Your task to perform on an android device: snooze an email in the gmail app Image 0: 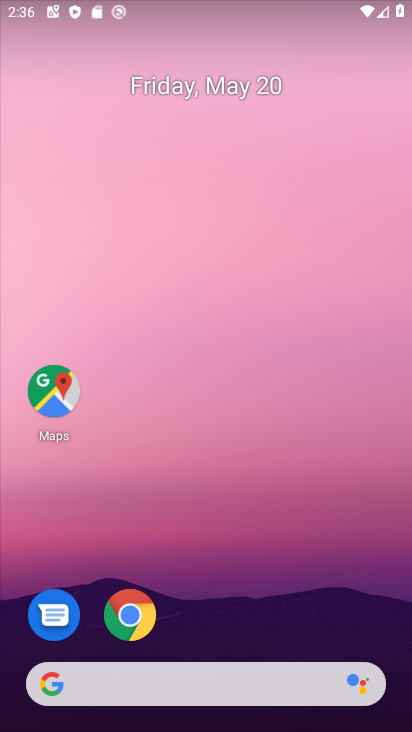
Step 0: drag from (232, 639) to (302, 235)
Your task to perform on an android device: snooze an email in the gmail app Image 1: 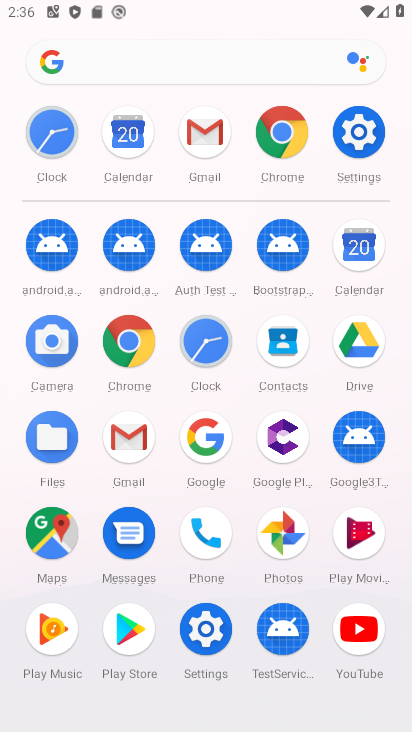
Step 1: click (130, 443)
Your task to perform on an android device: snooze an email in the gmail app Image 2: 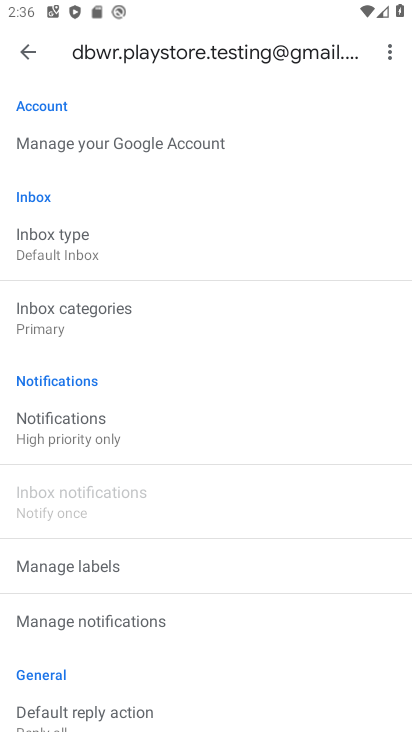
Step 2: click (21, 54)
Your task to perform on an android device: snooze an email in the gmail app Image 3: 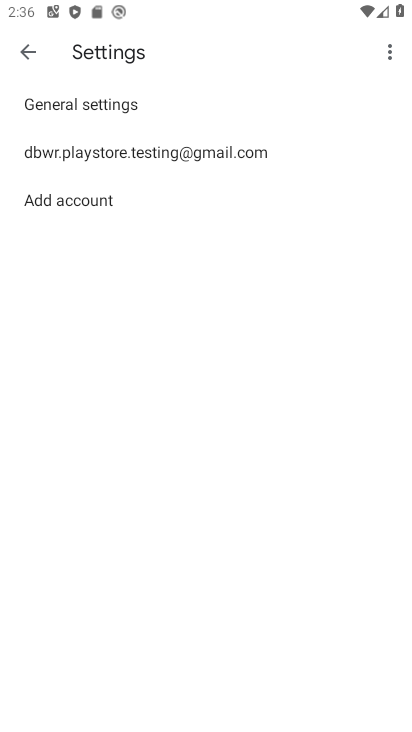
Step 3: click (31, 47)
Your task to perform on an android device: snooze an email in the gmail app Image 4: 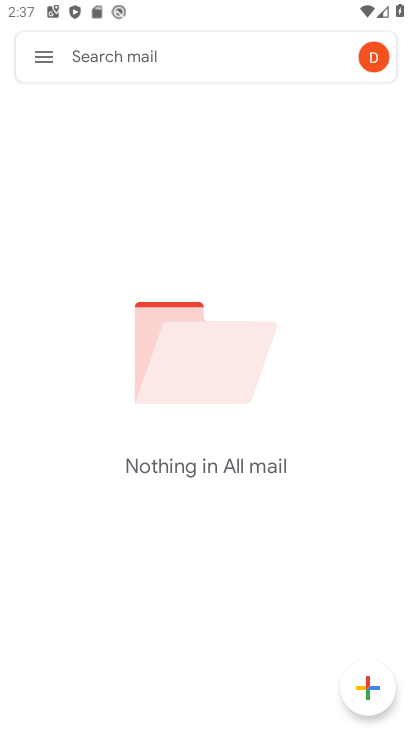
Step 4: click (34, 48)
Your task to perform on an android device: snooze an email in the gmail app Image 5: 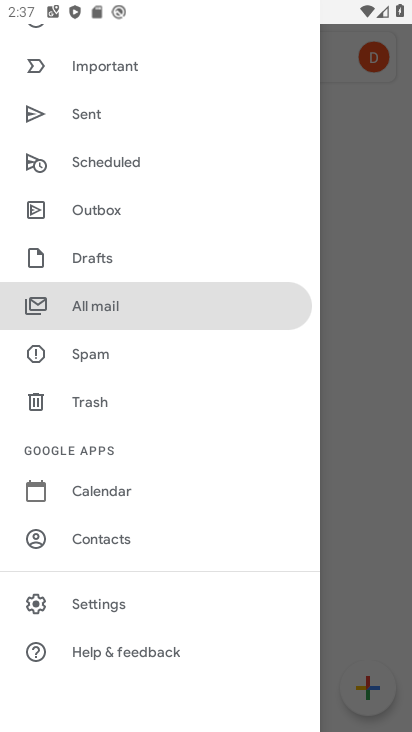
Step 5: drag from (136, 132) to (106, 399)
Your task to perform on an android device: snooze an email in the gmail app Image 6: 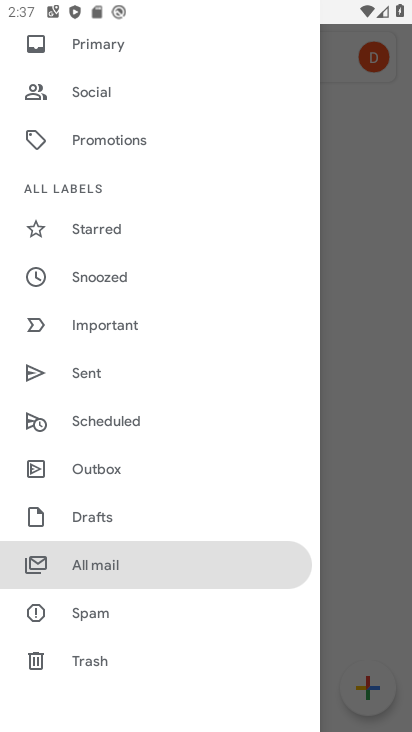
Step 6: click (95, 276)
Your task to perform on an android device: snooze an email in the gmail app Image 7: 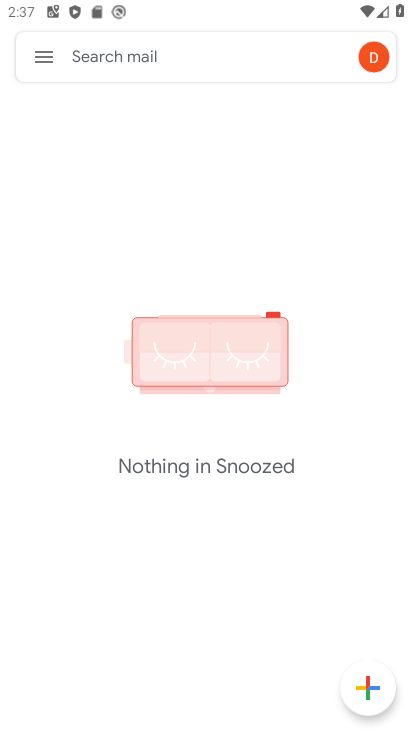
Step 7: task complete